Your task to perform on an android device: Do I have any events this weekend? Image 0: 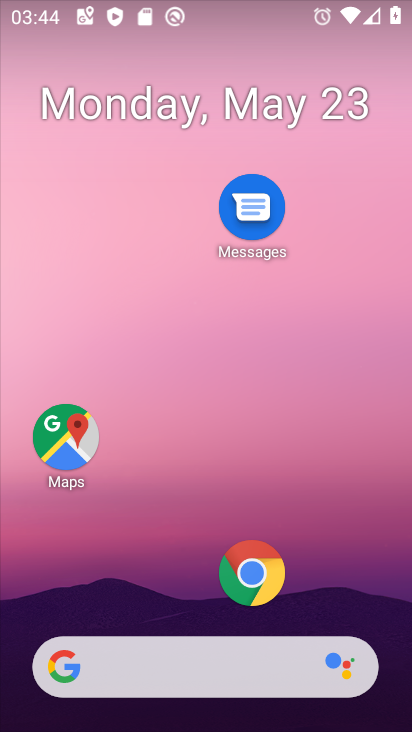
Step 0: drag from (282, 562) to (295, 125)
Your task to perform on an android device: Do I have any events this weekend? Image 1: 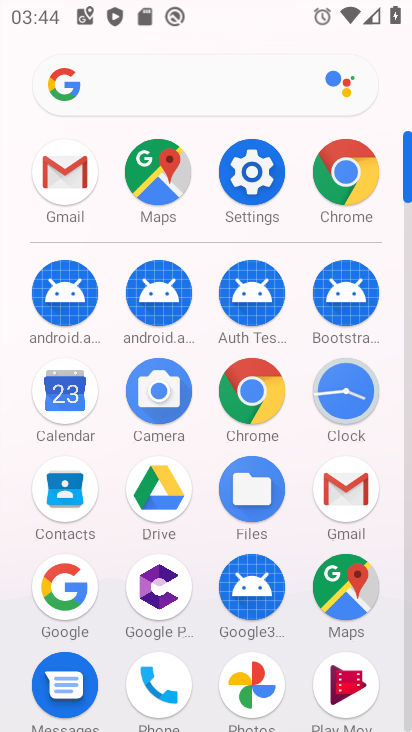
Step 1: click (70, 413)
Your task to perform on an android device: Do I have any events this weekend? Image 2: 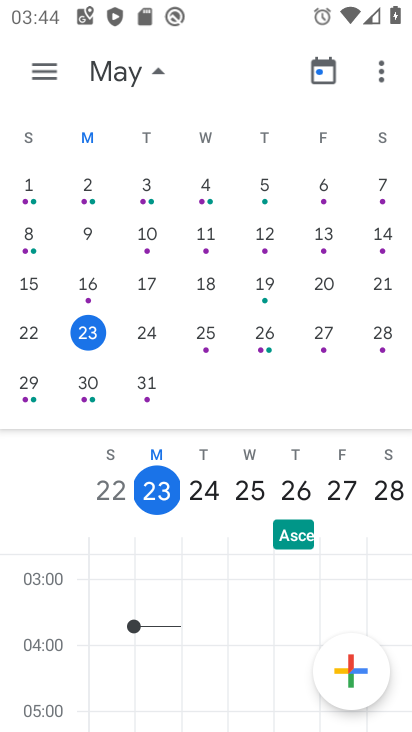
Step 2: click (367, 329)
Your task to perform on an android device: Do I have any events this weekend? Image 3: 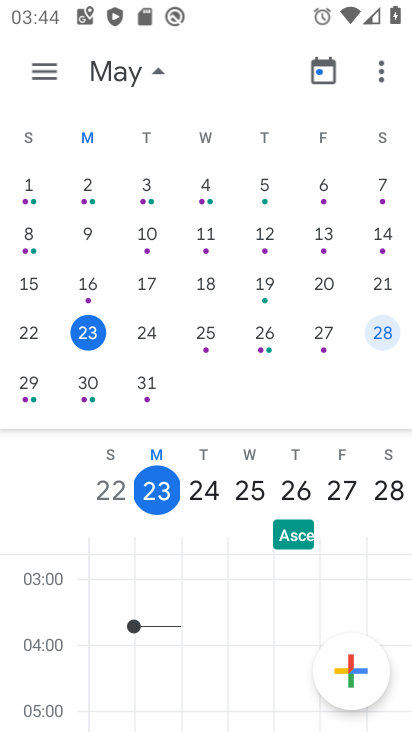
Step 3: click (386, 341)
Your task to perform on an android device: Do I have any events this weekend? Image 4: 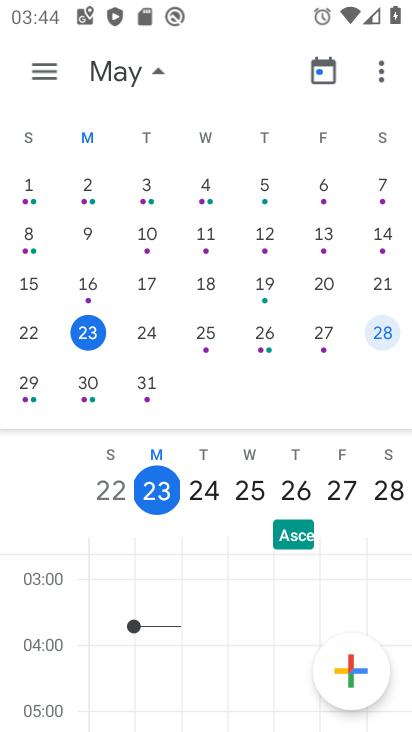
Step 4: click (375, 327)
Your task to perform on an android device: Do I have any events this weekend? Image 5: 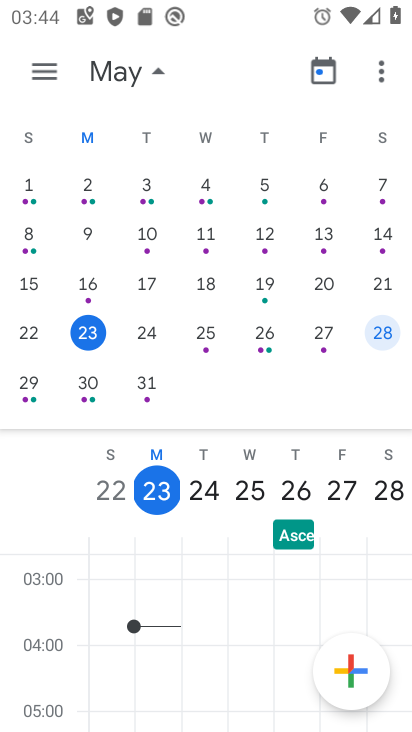
Step 5: click (372, 339)
Your task to perform on an android device: Do I have any events this weekend? Image 6: 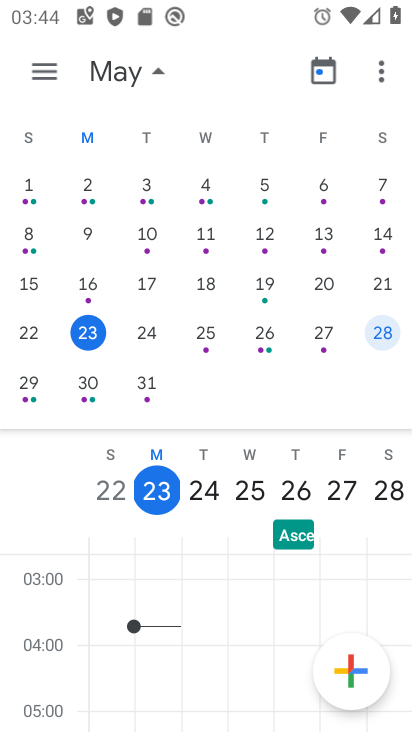
Step 6: task complete